Your task to perform on an android device: Open Yahoo.com Image 0: 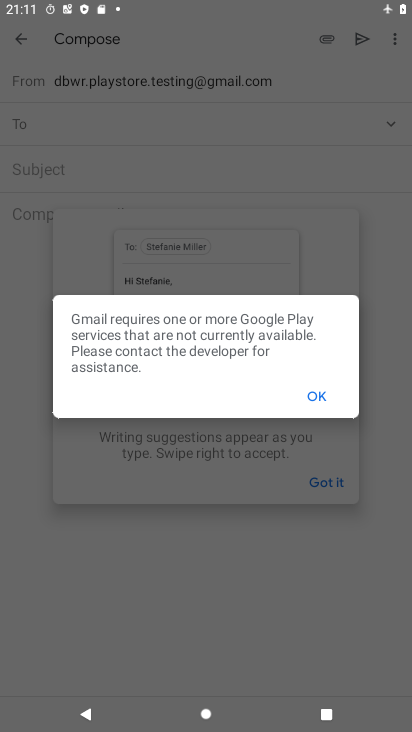
Step 0: press home button
Your task to perform on an android device: Open Yahoo.com Image 1: 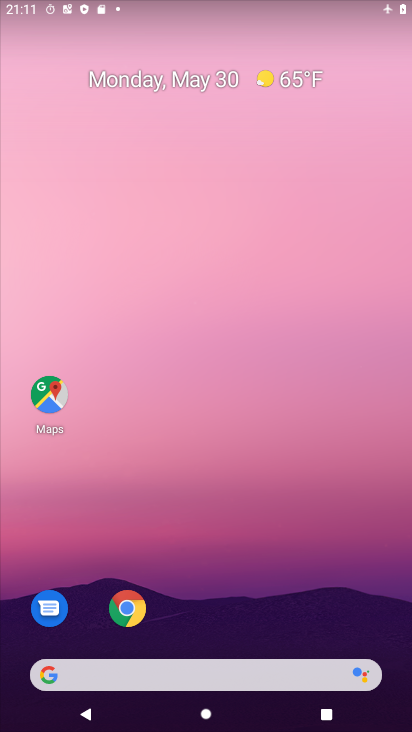
Step 1: click (135, 606)
Your task to perform on an android device: Open Yahoo.com Image 2: 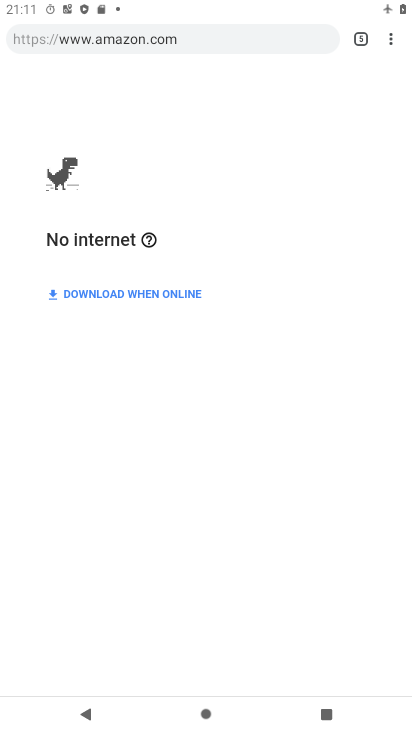
Step 2: task complete